Your task to perform on an android device: toggle notification dots Image 0: 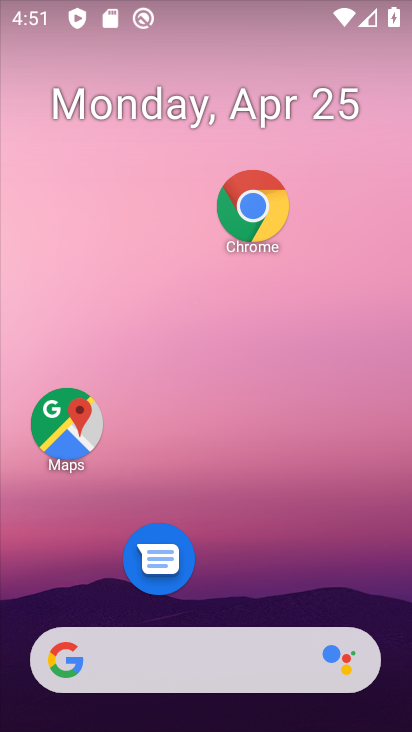
Step 0: drag from (254, 532) to (180, 139)
Your task to perform on an android device: toggle notification dots Image 1: 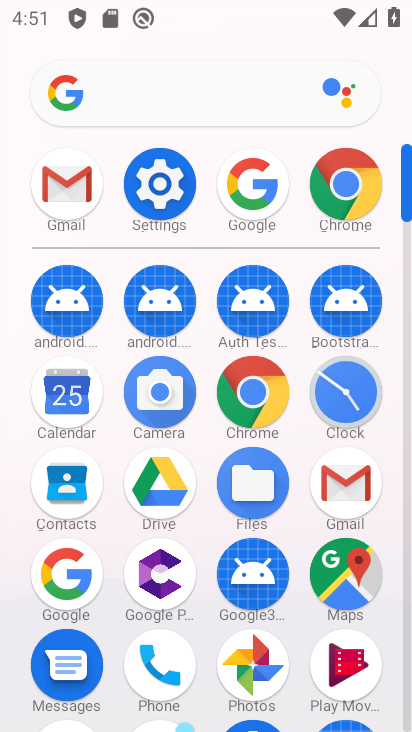
Step 1: click (162, 180)
Your task to perform on an android device: toggle notification dots Image 2: 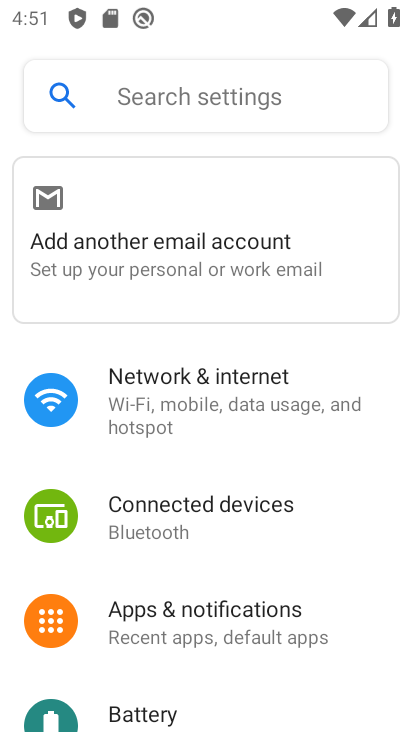
Step 2: click (181, 611)
Your task to perform on an android device: toggle notification dots Image 3: 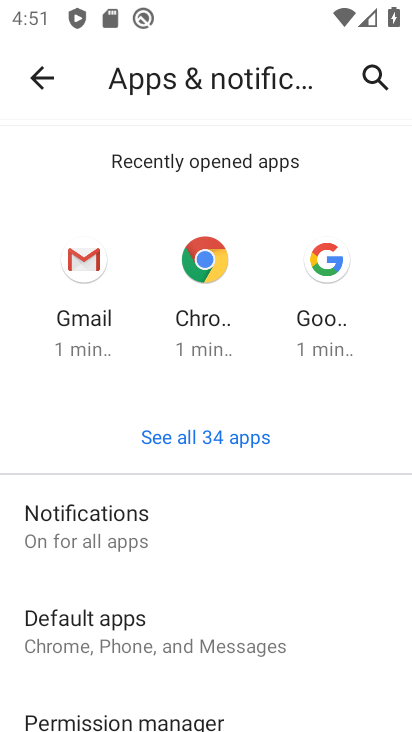
Step 3: click (113, 511)
Your task to perform on an android device: toggle notification dots Image 4: 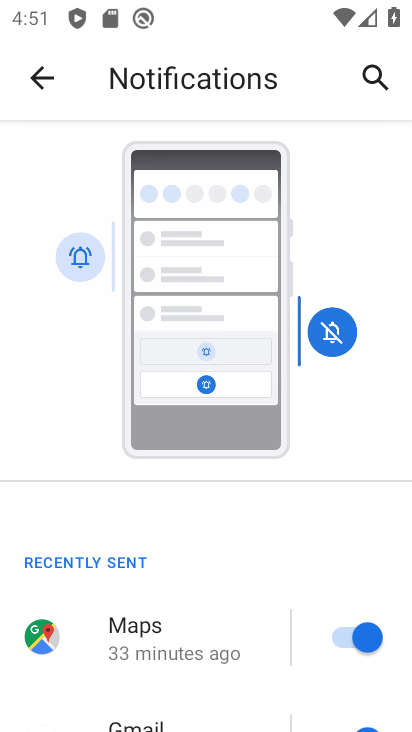
Step 4: drag from (200, 579) to (203, 426)
Your task to perform on an android device: toggle notification dots Image 5: 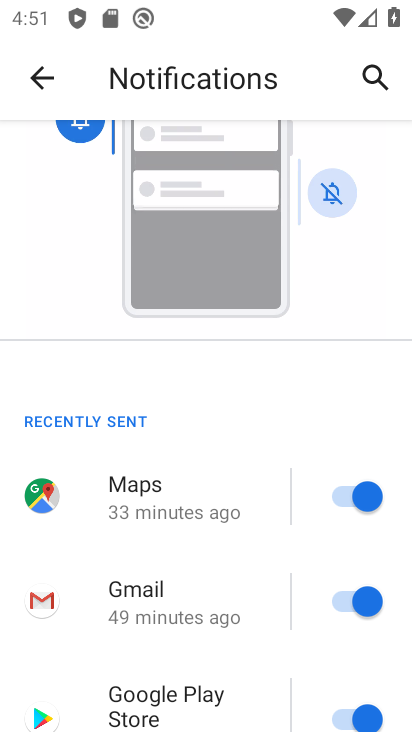
Step 5: drag from (199, 561) to (218, 414)
Your task to perform on an android device: toggle notification dots Image 6: 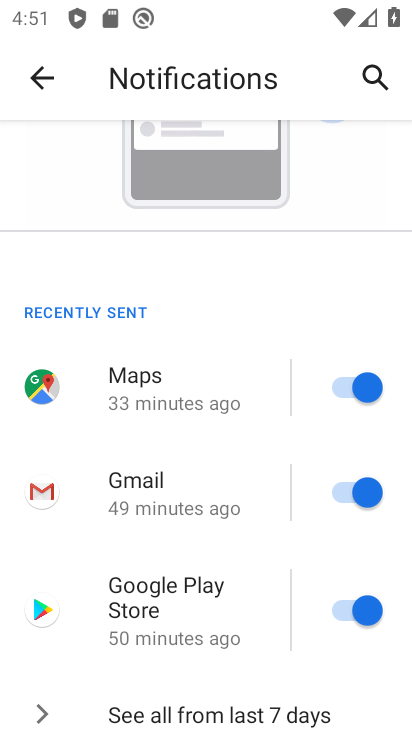
Step 6: drag from (154, 552) to (221, 257)
Your task to perform on an android device: toggle notification dots Image 7: 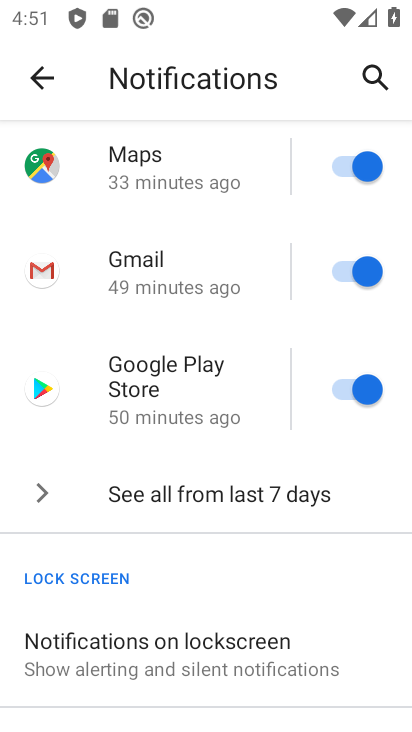
Step 7: drag from (168, 593) to (231, 450)
Your task to perform on an android device: toggle notification dots Image 8: 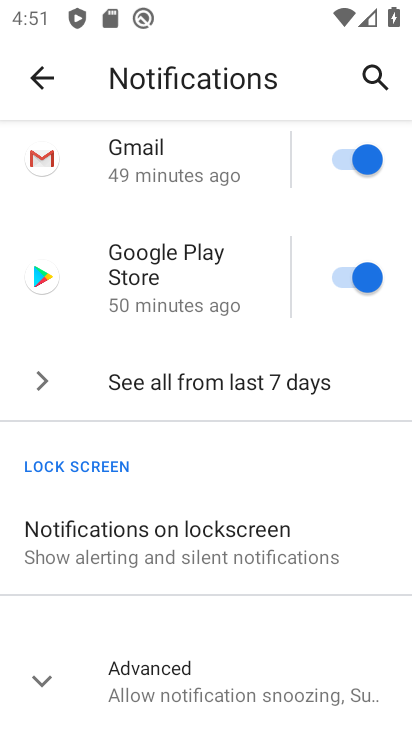
Step 8: click (179, 673)
Your task to perform on an android device: toggle notification dots Image 9: 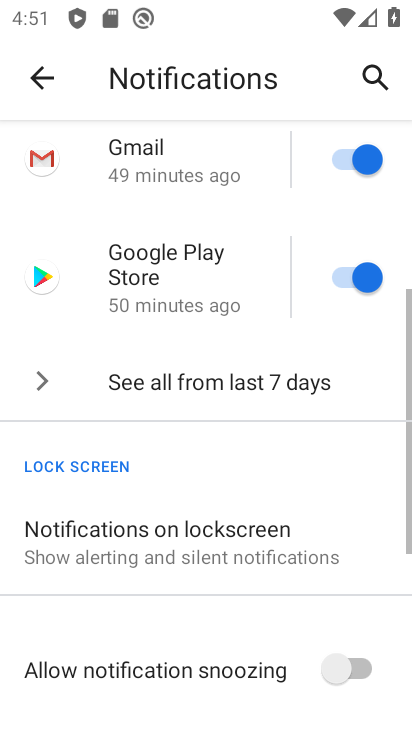
Step 9: drag from (177, 653) to (217, 570)
Your task to perform on an android device: toggle notification dots Image 10: 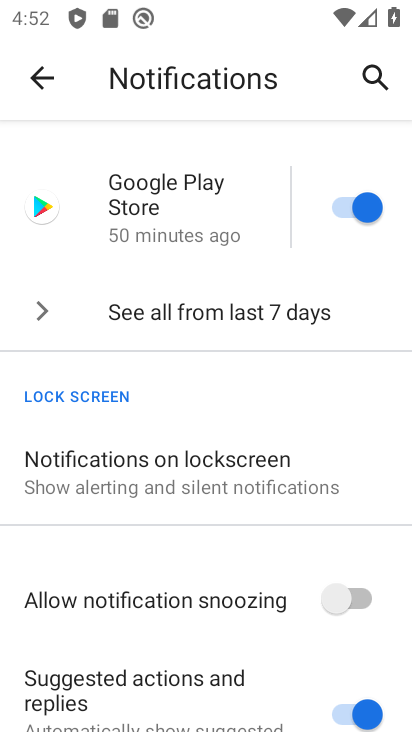
Step 10: drag from (174, 704) to (233, 544)
Your task to perform on an android device: toggle notification dots Image 11: 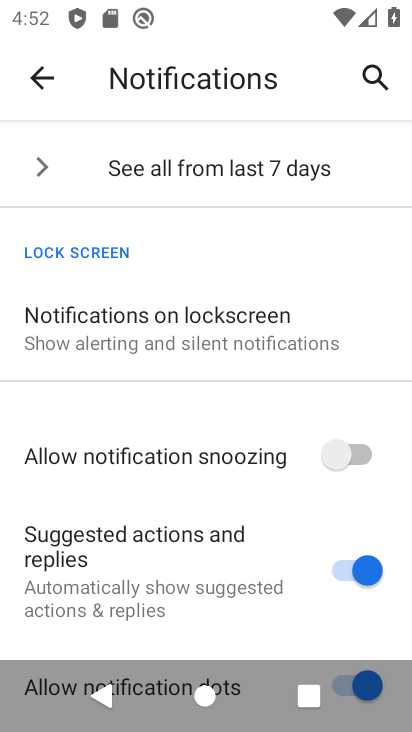
Step 11: drag from (186, 628) to (270, 472)
Your task to perform on an android device: toggle notification dots Image 12: 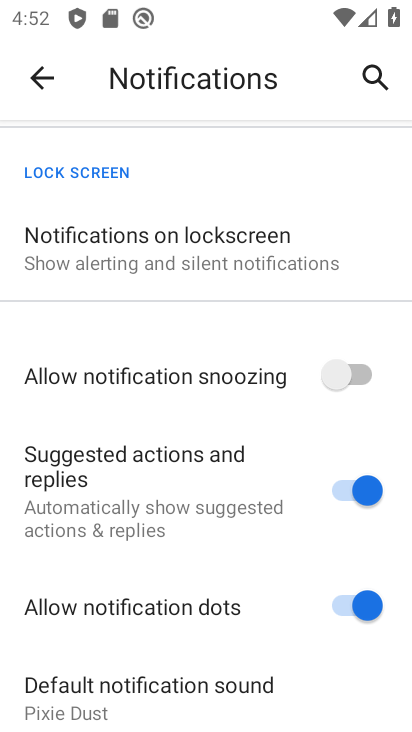
Step 12: click (373, 606)
Your task to perform on an android device: toggle notification dots Image 13: 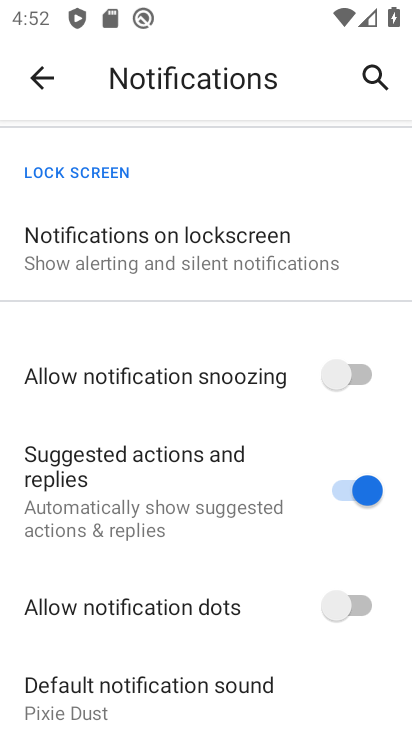
Step 13: task complete